Your task to perform on an android device: check storage Image 0: 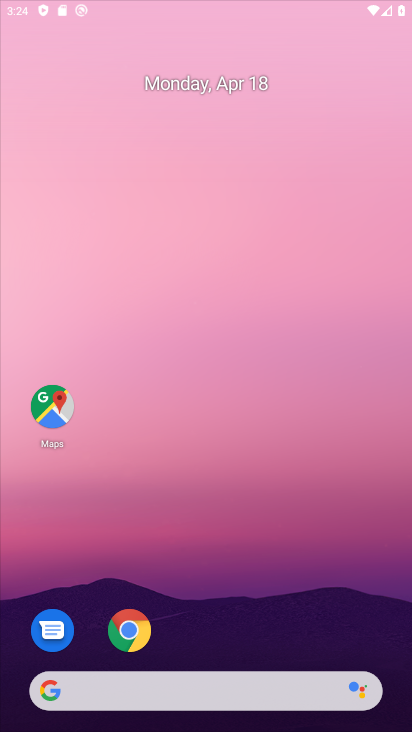
Step 0: click (290, 97)
Your task to perform on an android device: check storage Image 1: 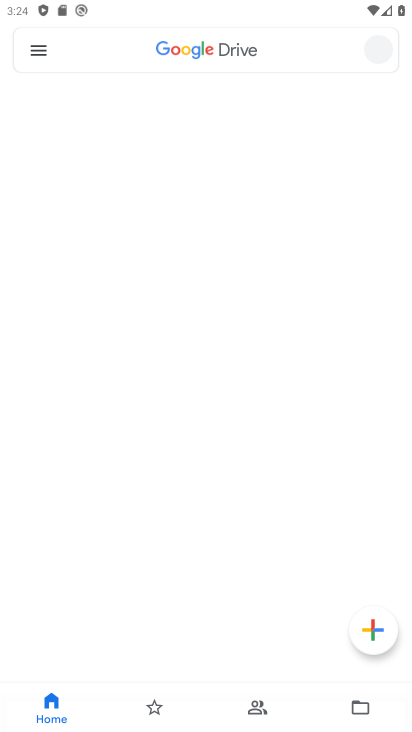
Step 1: drag from (247, 571) to (337, 239)
Your task to perform on an android device: check storage Image 2: 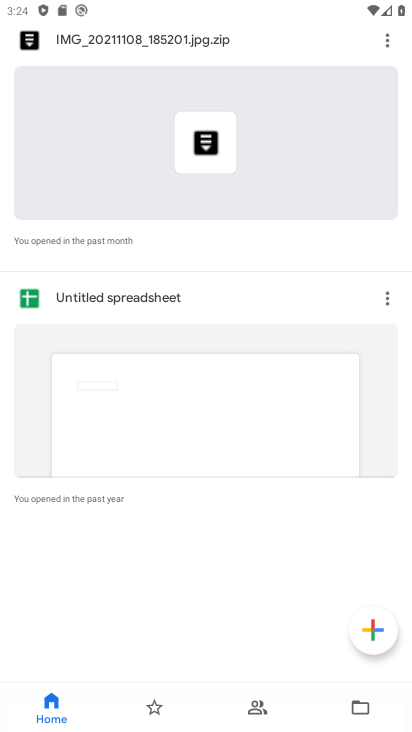
Step 2: press back button
Your task to perform on an android device: check storage Image 3: 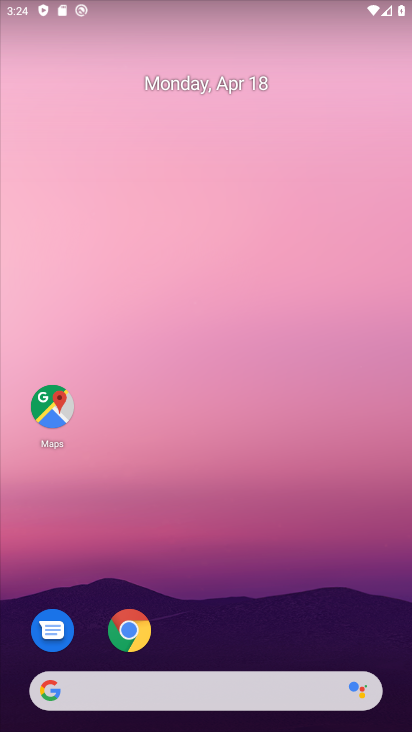
Step 3: drag from (169, 674) to (299, 79)
Your task to perform on an android device: check storage Image 4: 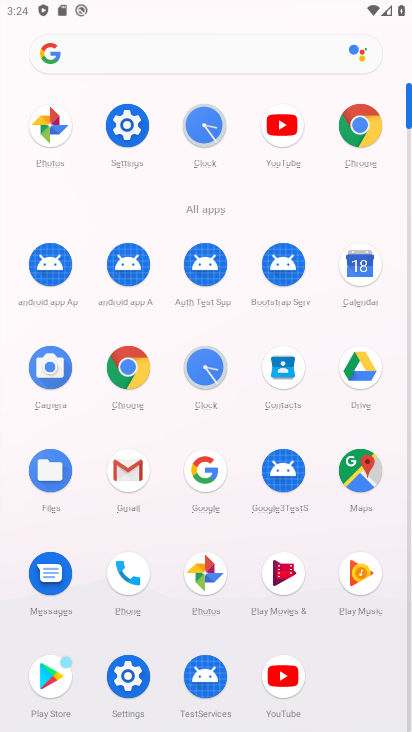
Step 4: click (120, 670)
Your task to perform on an android device: check storage Image 5: 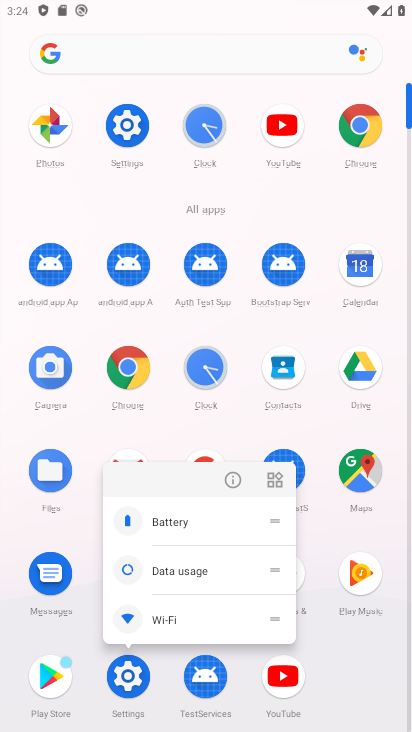
Step 5: click (131, 674)
Your task to perform on an android device: check storage Image 6: 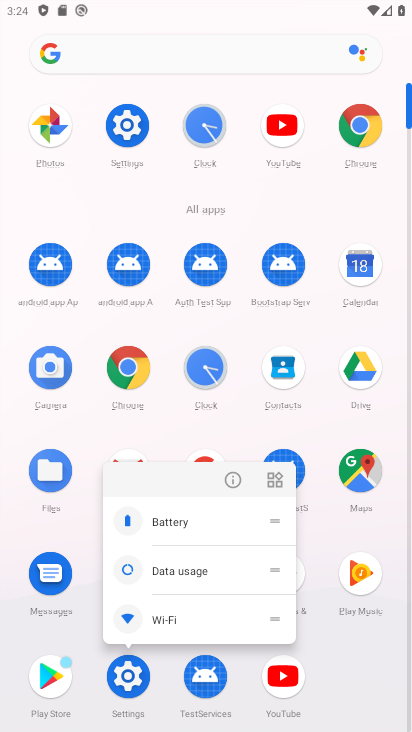
Step 6: click (126, 681)
Your task to perform on an android device: check storage Image 7: 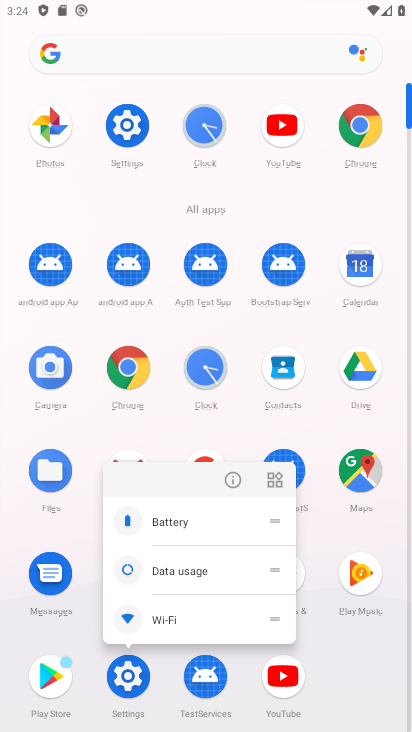
Step 7: click (123, 696)
Your task to perform on an android device: check storage Image 8: 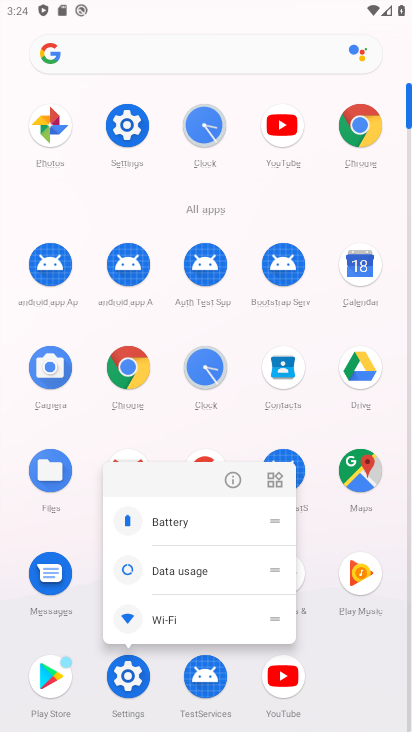
Step 8: click (124, 686)
Your task to perform on an android device: check storage Image 9: 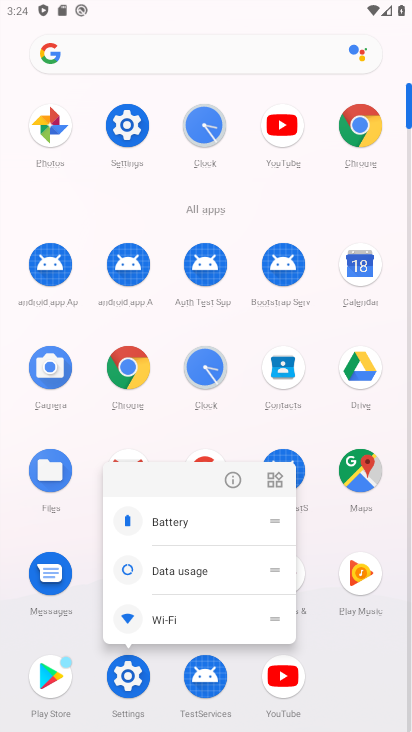
Step 9: click (123, 683)
Your task to perform on an android device: check storage Image 10: 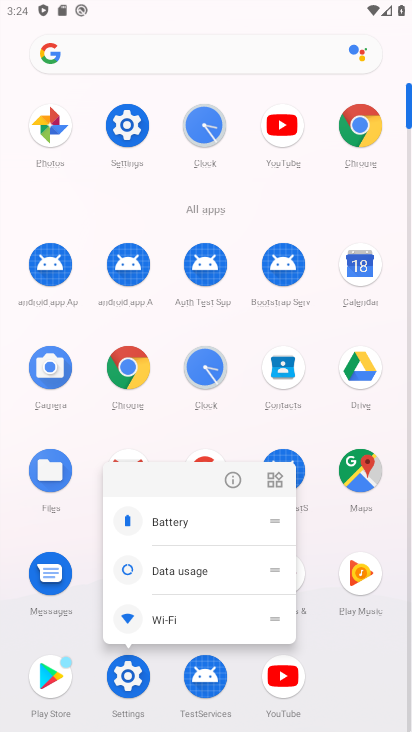
Step 10: click (122, 686)
Your task to perform on an android device: check storage Image 11: 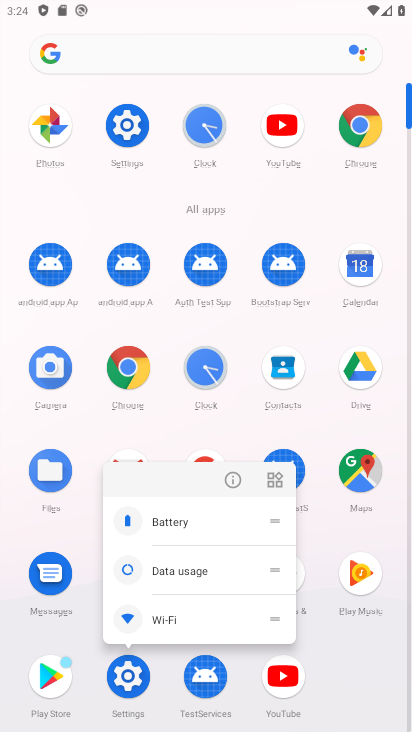
Step 11: click (129, 689)
Your task to perform on an android device: check storage Image 12: 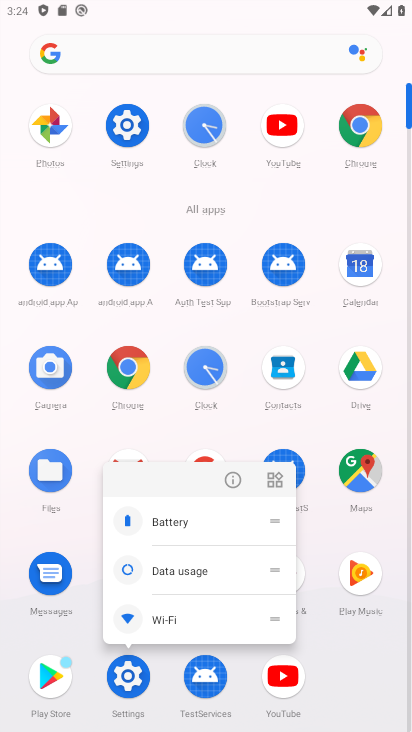
Step 12: click (129, 689)
Your task to perform on an android device: check storage Image 13: 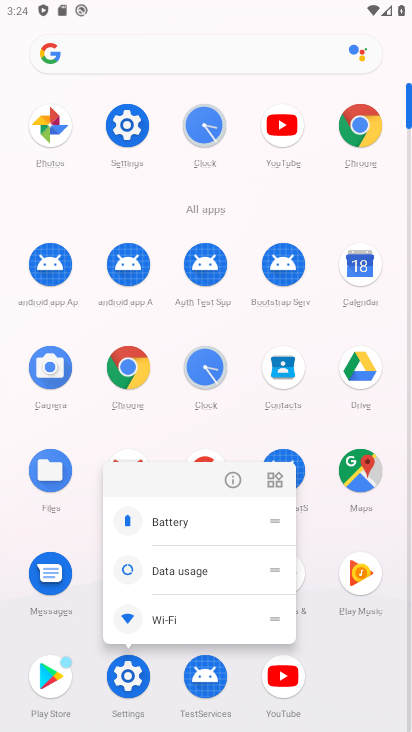
Step 13: click (145, 672)
Your task to perform on an android device: check storage Image 14: 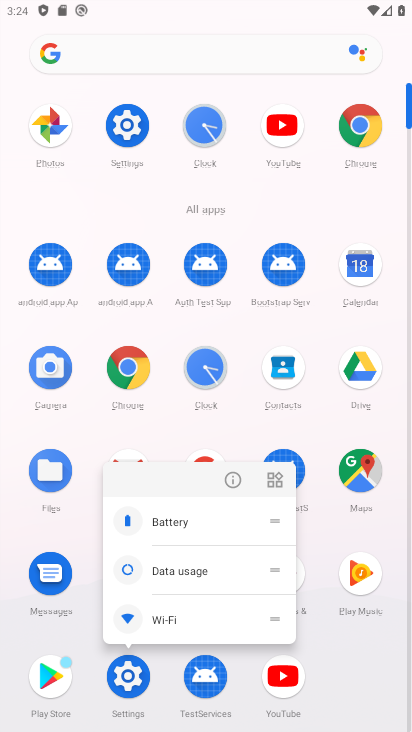
Step 14: click (134, 670)
Your task to perform on an android device: check storage Image 15: 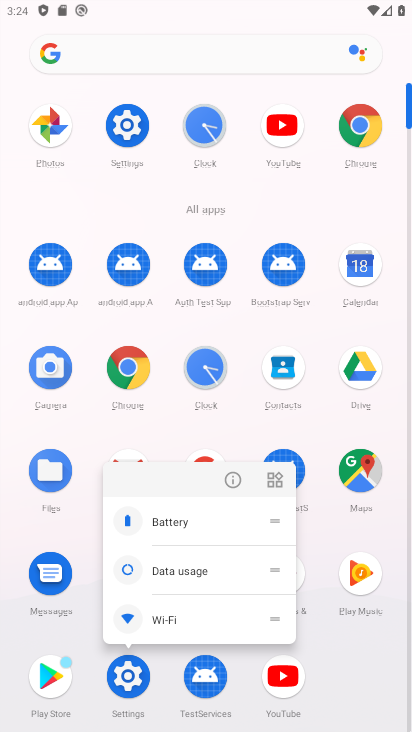
Step 15: click (122, 680)
Your task to perform on an android device: check storage Image 16: 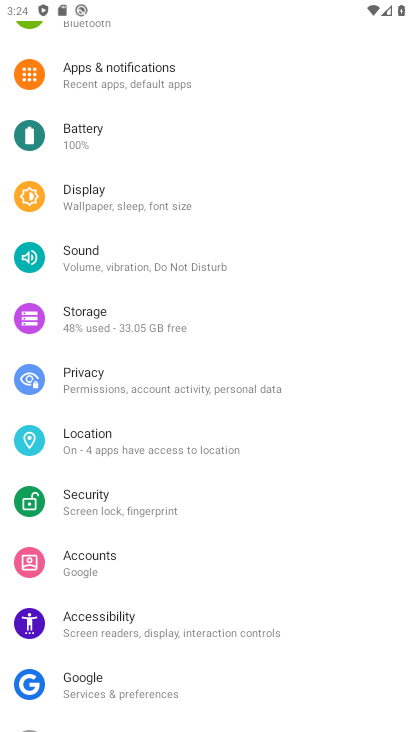
Step 16: click (117, 311)
Your task to perform on an android device: check storage Image 17: 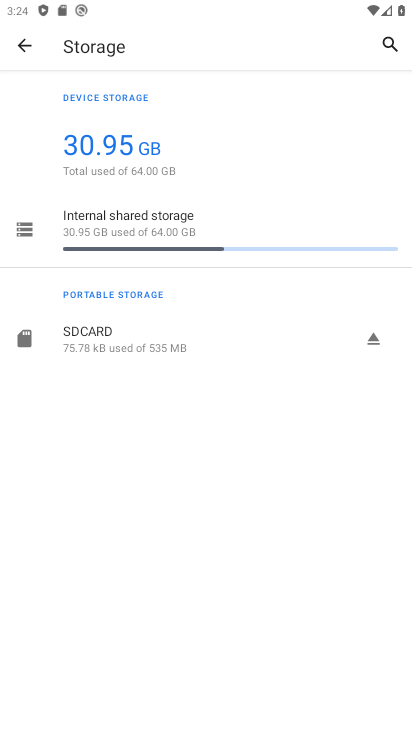
Step 17: click (141, 229)
Your task to perform on an android device: check storage Image 18: 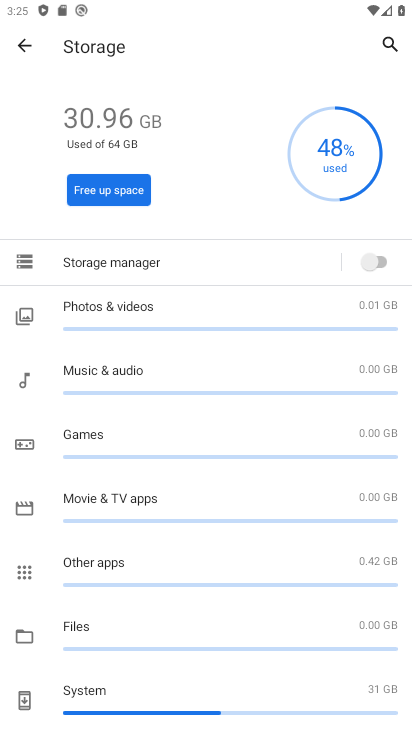
Step 18: task complete